Your task to perform on an android device: Open internet settings Image 0: 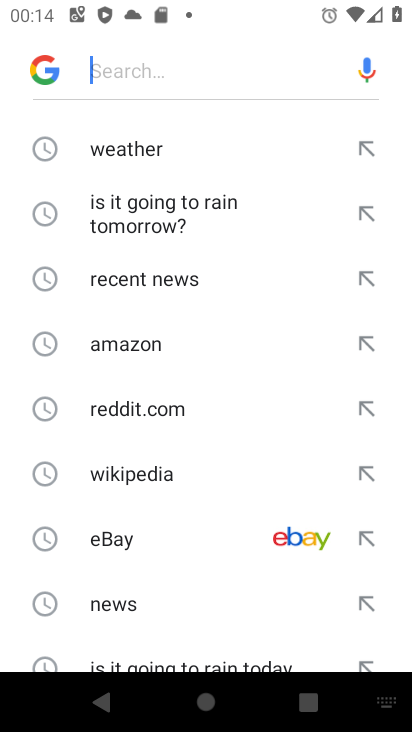
Step 0: press home button
Your task to perform on an android device: Open internet settings Image 1: 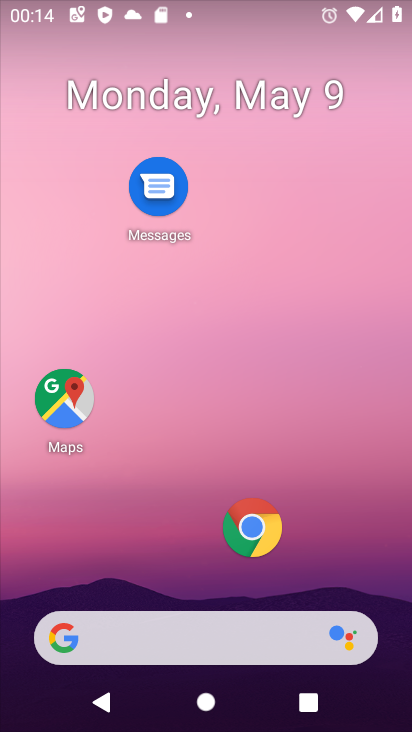
Step 1: drag from (186, 420) to (220, 84)
Your task to perform on an android device: Open internet settings Image 2: 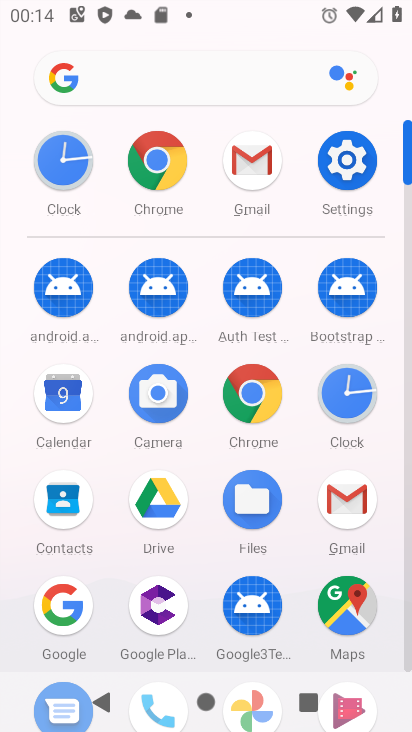
Step 2: click (203, 572)
Your task to perform on an android device: Open internet settings Image 3: 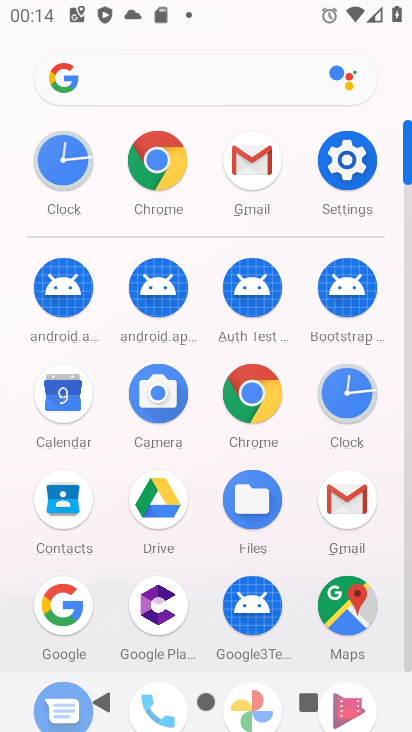
Step 3: click (346, 162)
Your task to perform on an android device: Open internet settings Image 4: 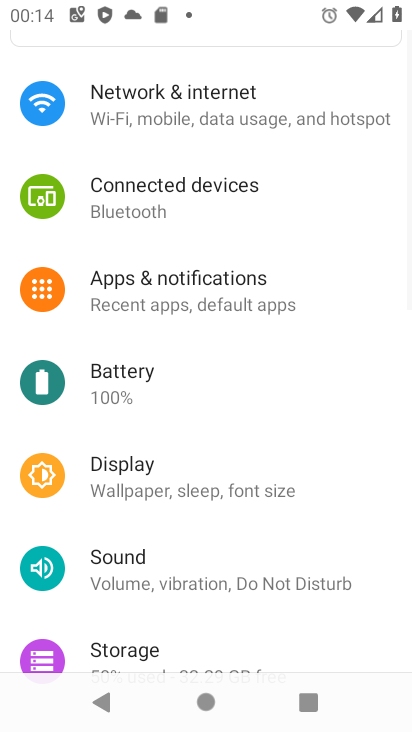
Step 4: click (213, 108)
Your task to perform on an android device: Open internet settings Image 5: 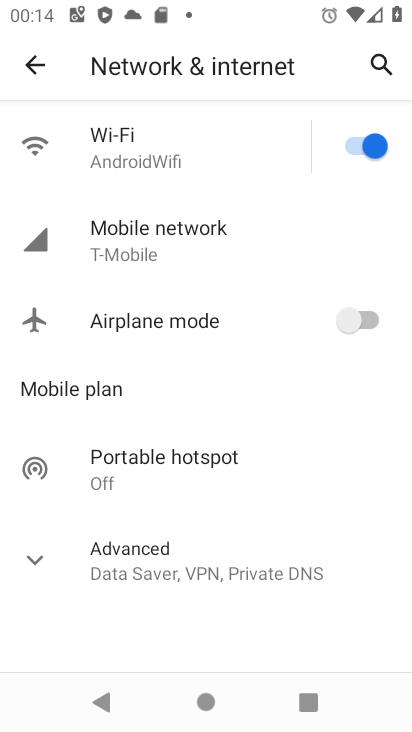
Step 5: click (149, 149)
Your task to perform on an android device: Open internet settings Image 6: 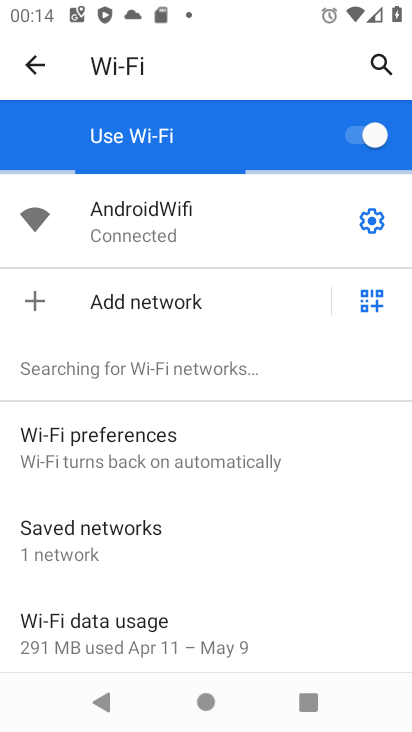
Step 6: click (165, 219)
Your task to perform on an android device: Open internet settings Image 7: 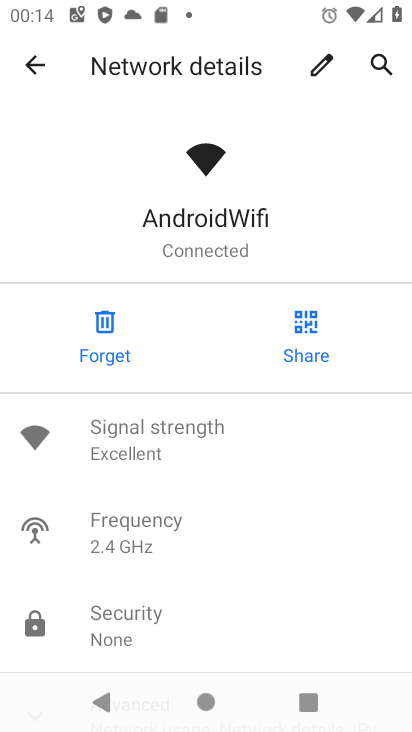
Step 7: task complete